Your task to perform on an android device: turn off location Image 0: 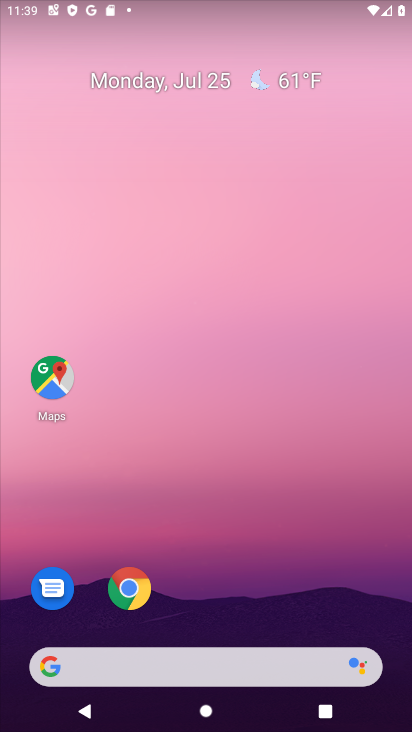
Step 0: drag from (212, 636) to (279, 42)
Your task to perform on an android device: turn off location Image 1: 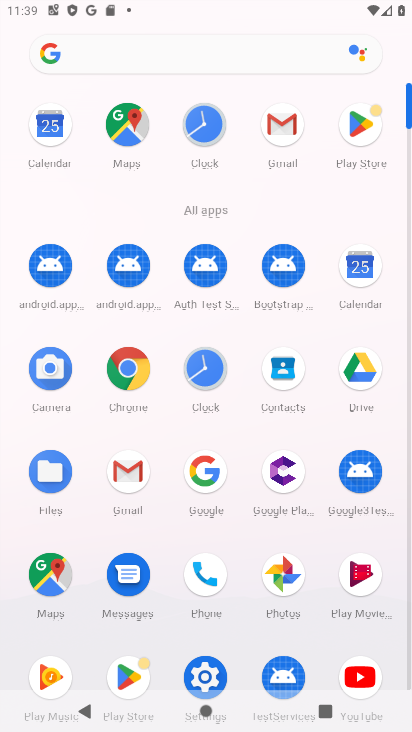
Step 1: click (204, 665)
Your task to perform on an android device: turn off location Image 2: 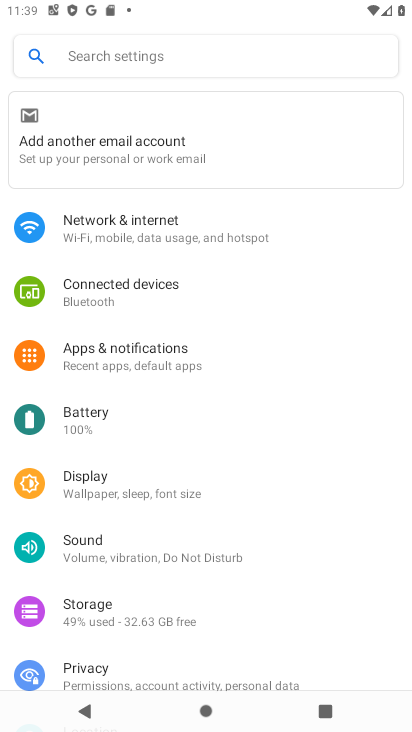
Step 2: drag from (152, 638) to (236, 80)
Your task to perform on an android device: turn off location Image 3: 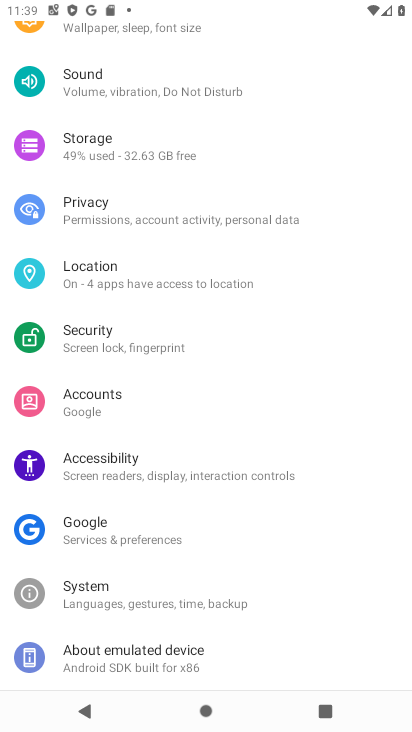
Step 3: click (126, 268)
Your task to perform on an android device: turn off location Image 4: 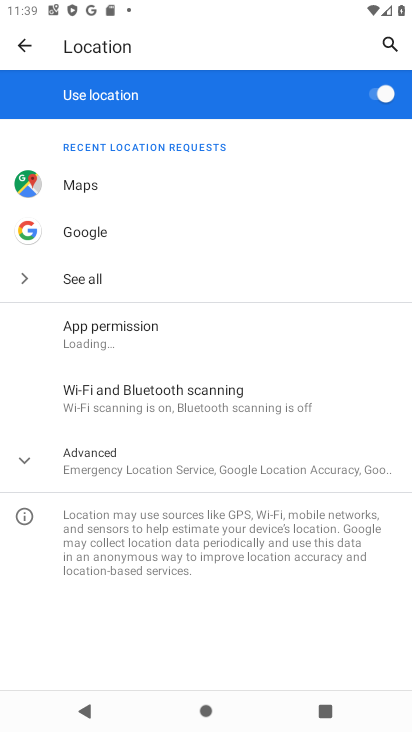
Step 4: click (373, 95)
Your task to perform on an android device: turn off location Image 5: 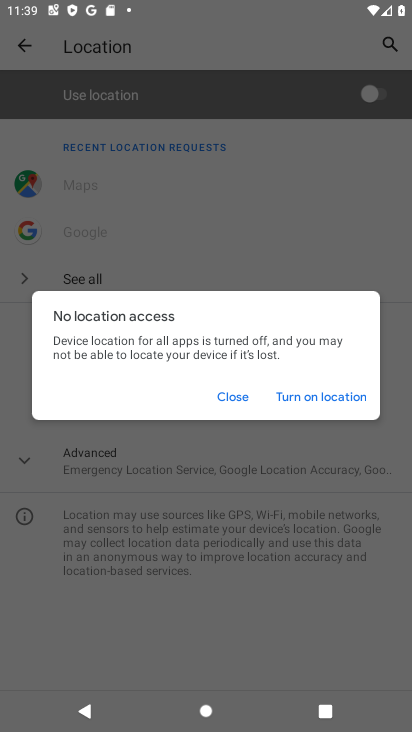
Step 5: task complete